Your task to perform on an android device: Clear the cart on amazon. Image 0: 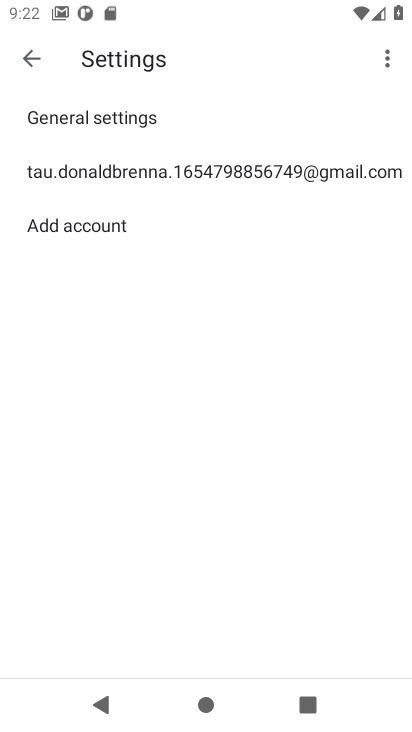
Step 0: press home button
Your task to perform on an android device: Clear the cart on amazon. Image 1: 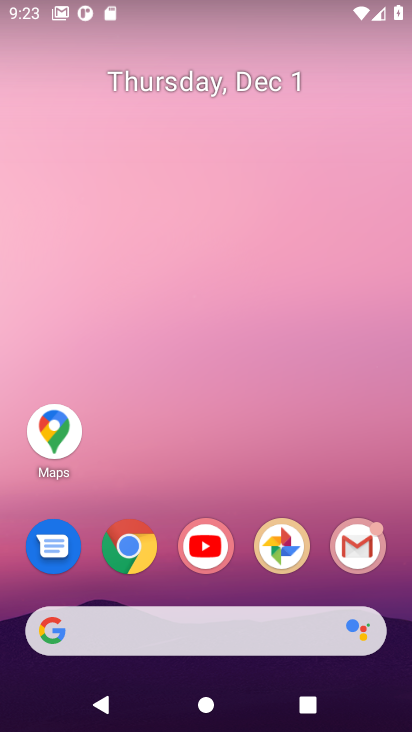
Step 1: click (119, 547)
Your task to perform on an android device: Clear the cart on amazon. Image 2: 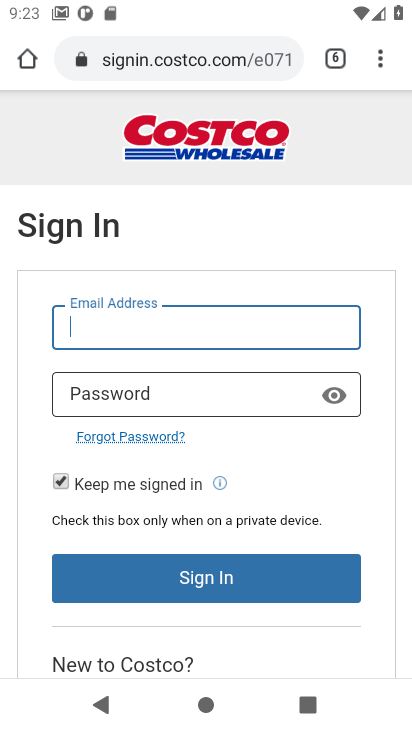
Step 2: click (168, 59)
Your task to perform on an android device: Clear the cart on amazon. Image 3: 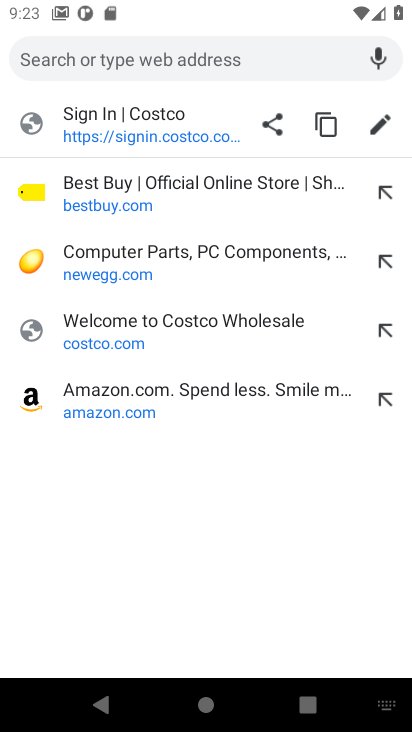
Step 3: click (91, 395)
Your task to perform on an android device: Clear the cart on amazon. Image 4: 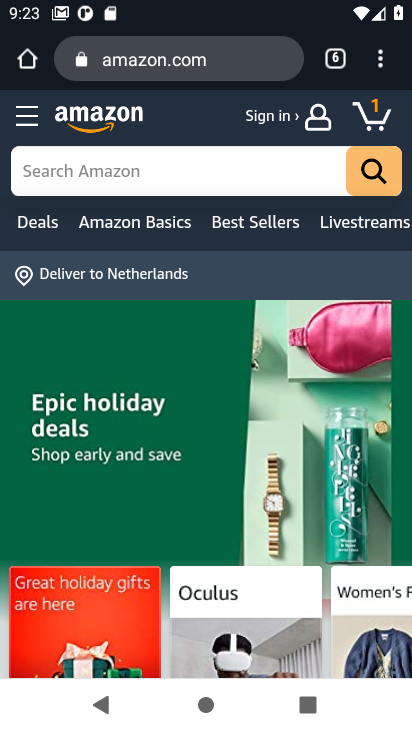
Step 4: click (374, 112)
Your task to perform on an android device: Clear the cart on amazon. Image 5: 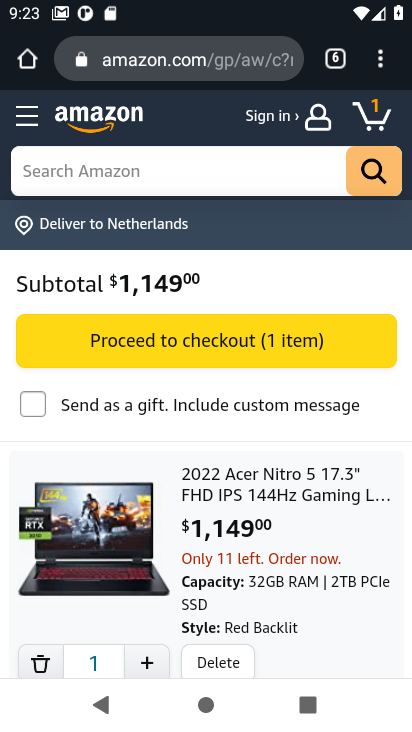
Step 5: drag from (135, 462) to (154, 192)
Your task to perform on an android device: Clear the cart on amazon. Image 6: 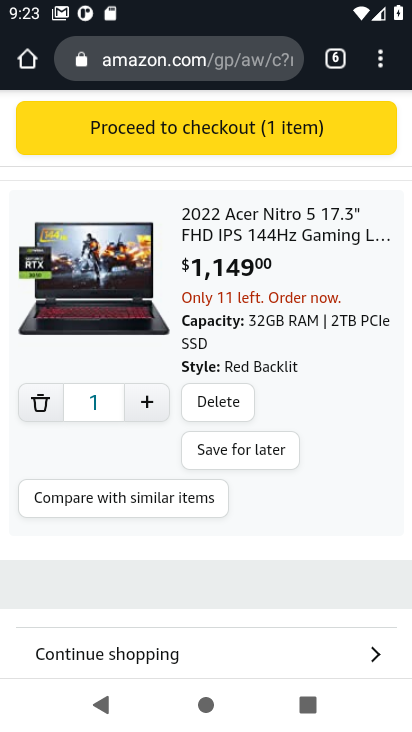
Step 6: click (38, 404)
Your task to perform on an android device: Clear the cart on amazon. Image 7: 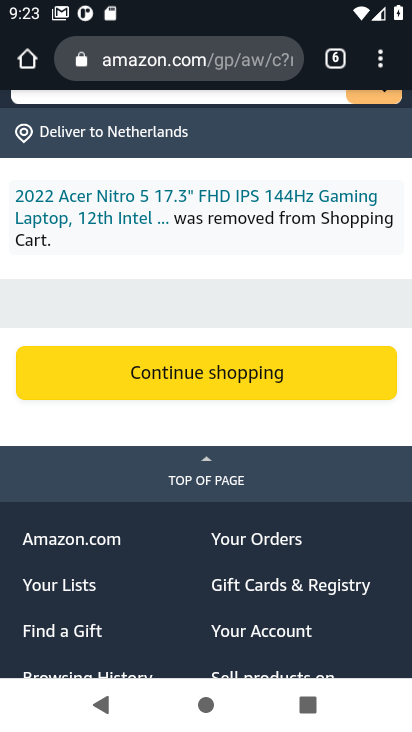
Step 7: task complete